Your task to perform on an android device: change timer sound Image 0: 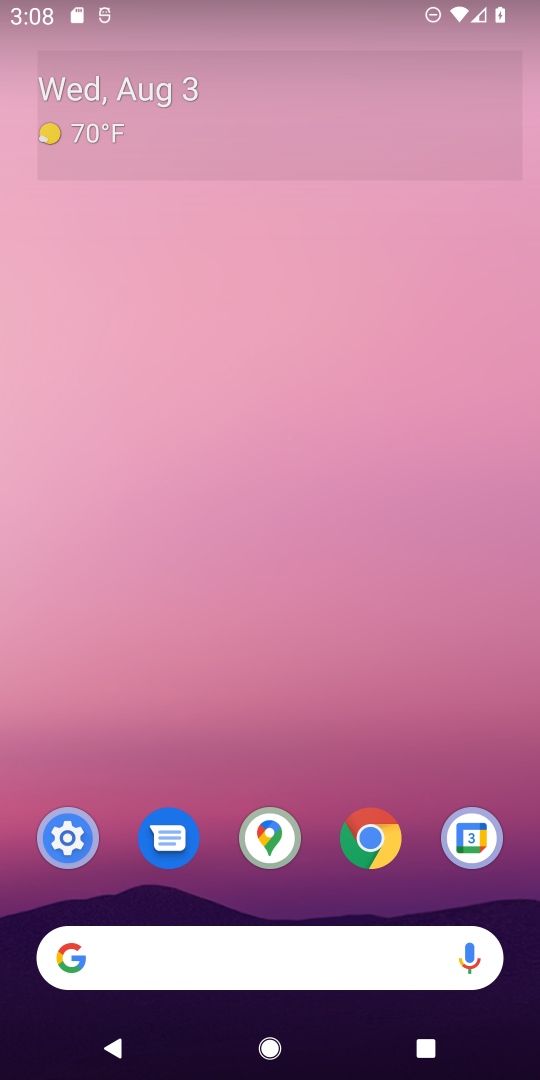
Step 0: drag from (369, 697) to (415, 6)
Your task to perform on an android device: change timer sound Image 1: 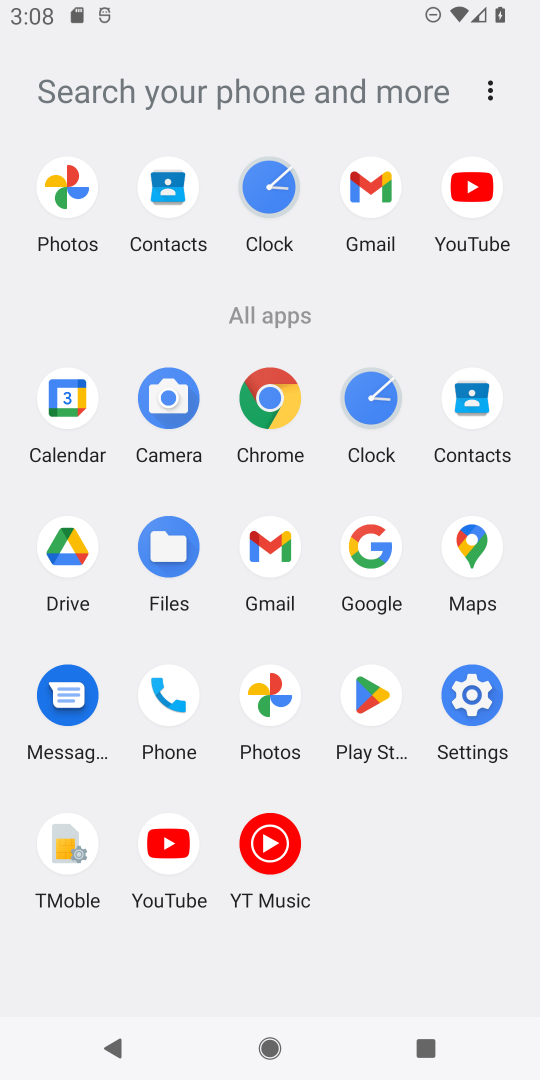
Step 1: click (372, 420)
Your task to perform on an android device: change timer sound Image 2: 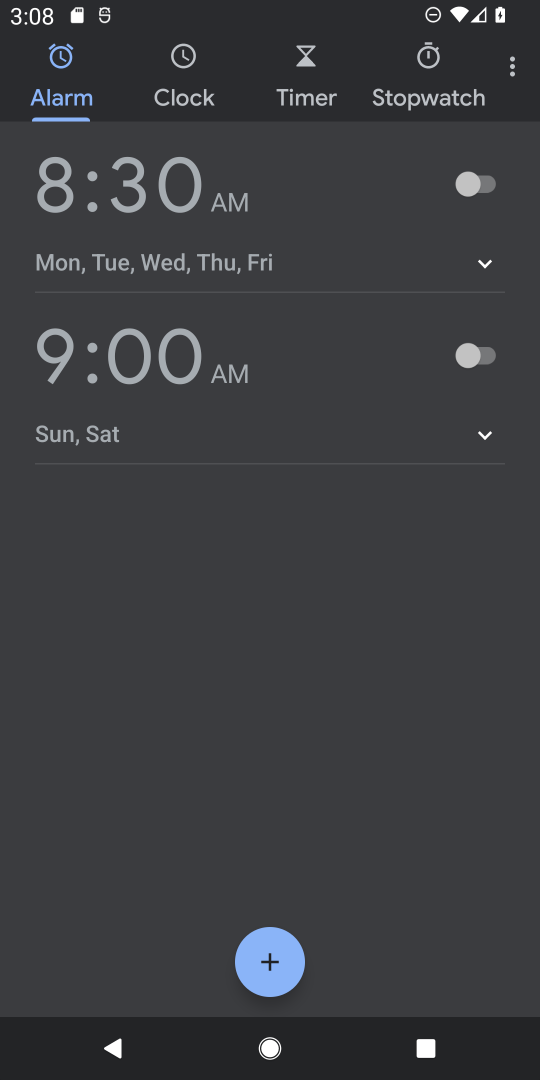
Step 2: click (526, 77)
Your task to perform on an android device: change timer sound Image 3: 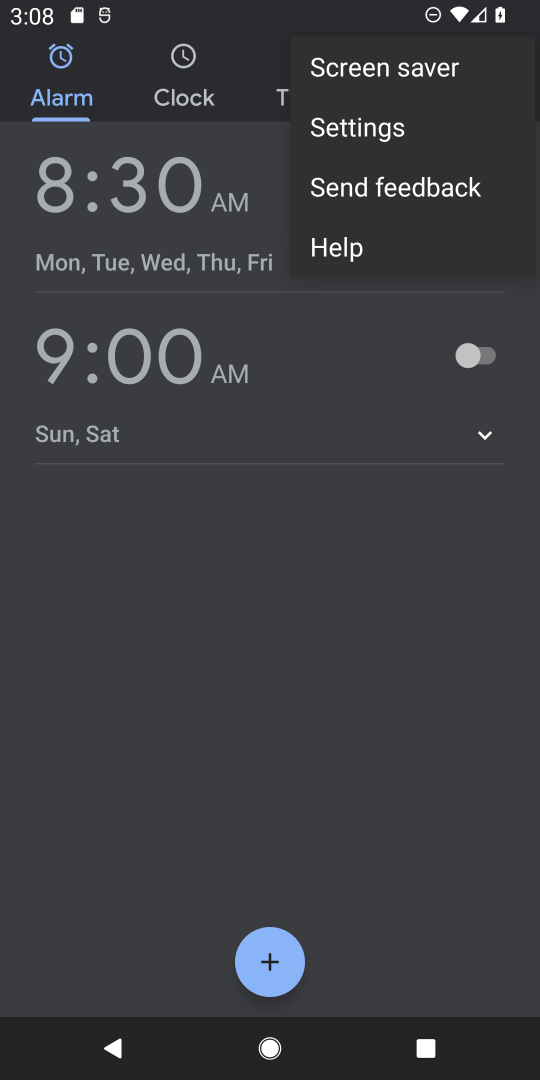
Step 3: click (411, 135)
Your task to perform on an android device: change timer sound Image 4: 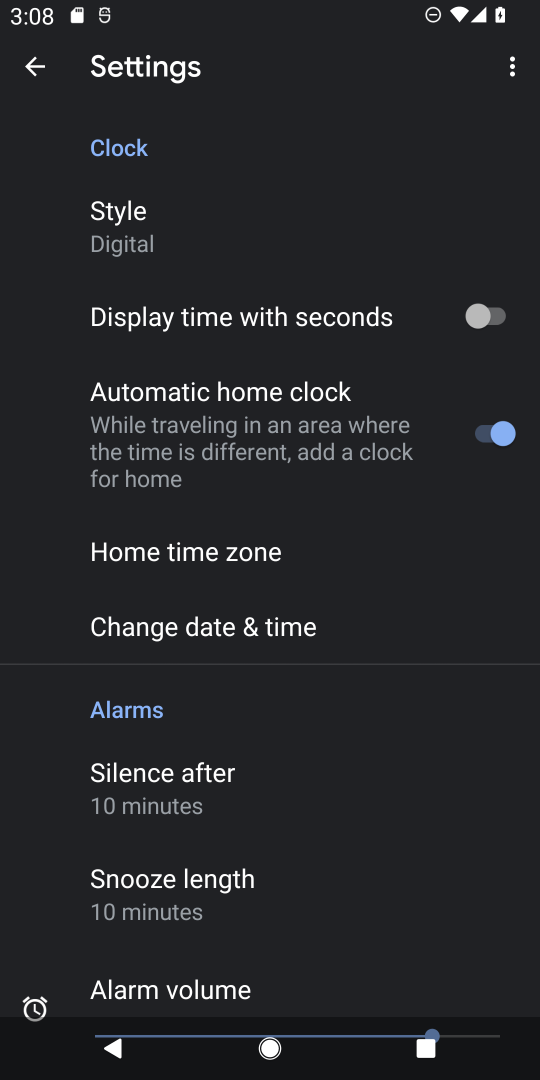
Step 4: drag from (178, 912) to (200, 423)
Your task to perform on an android device: change timer sound Image 5: 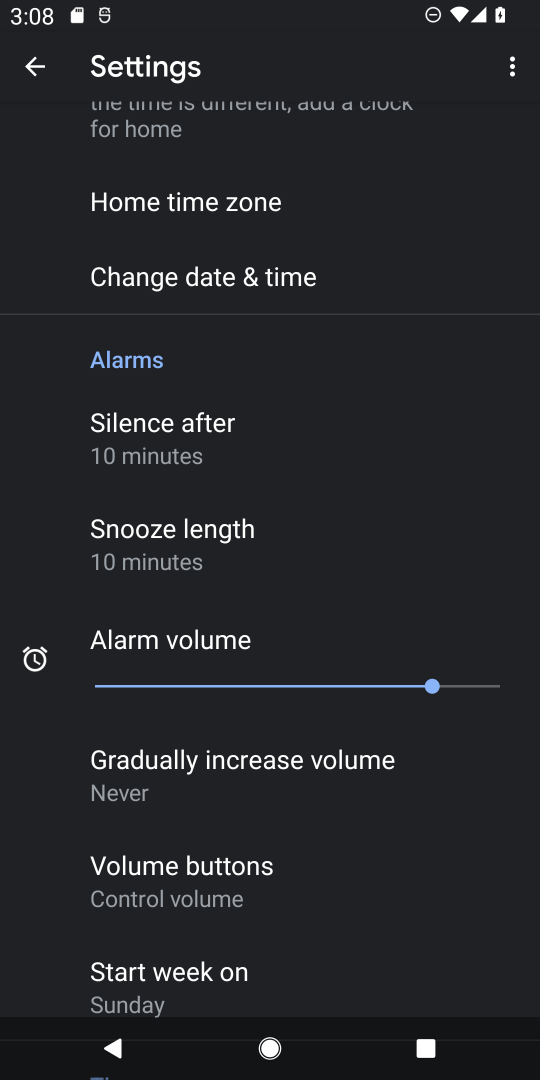
Step 5: drag from (306, 935) to (301, 290)
Your task to perform on an android device: change timer sound Image 6: 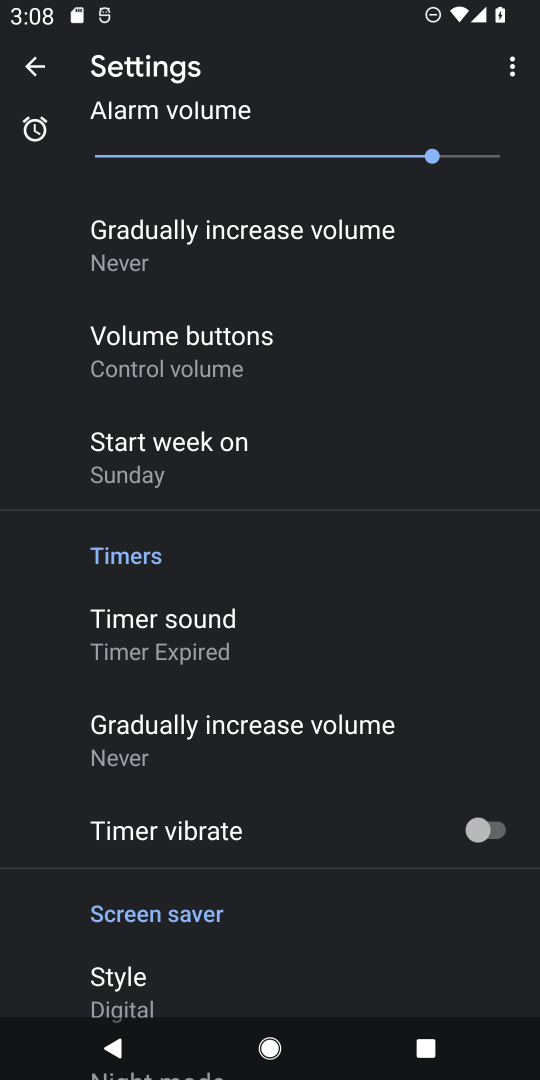
Step 6: click (231, 616)
Your task to perform on an android device: change timer sound Image 7: 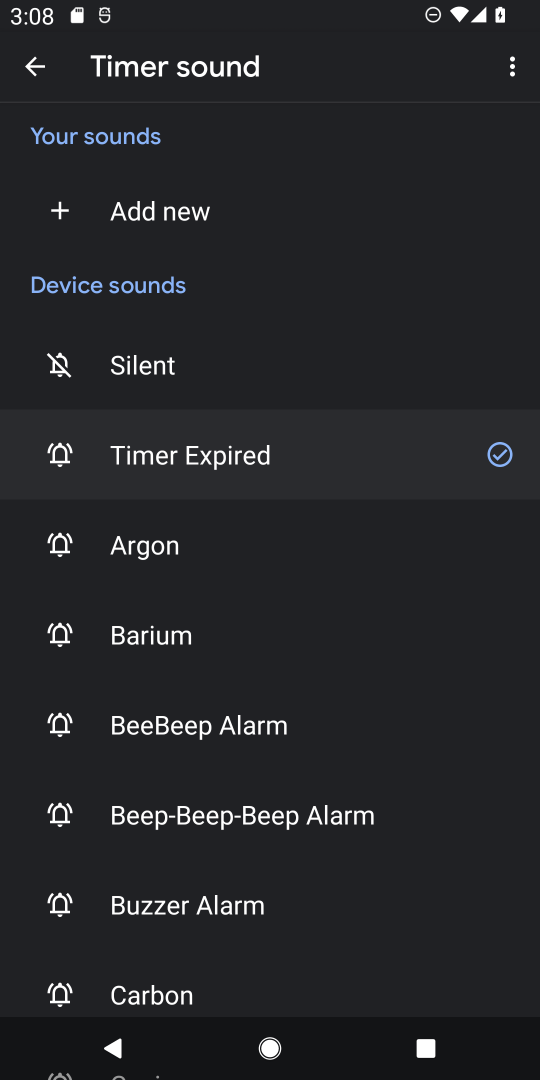
Step 7: click (192, 558)
Your task to perform on an android device: change timer sound Image 8: 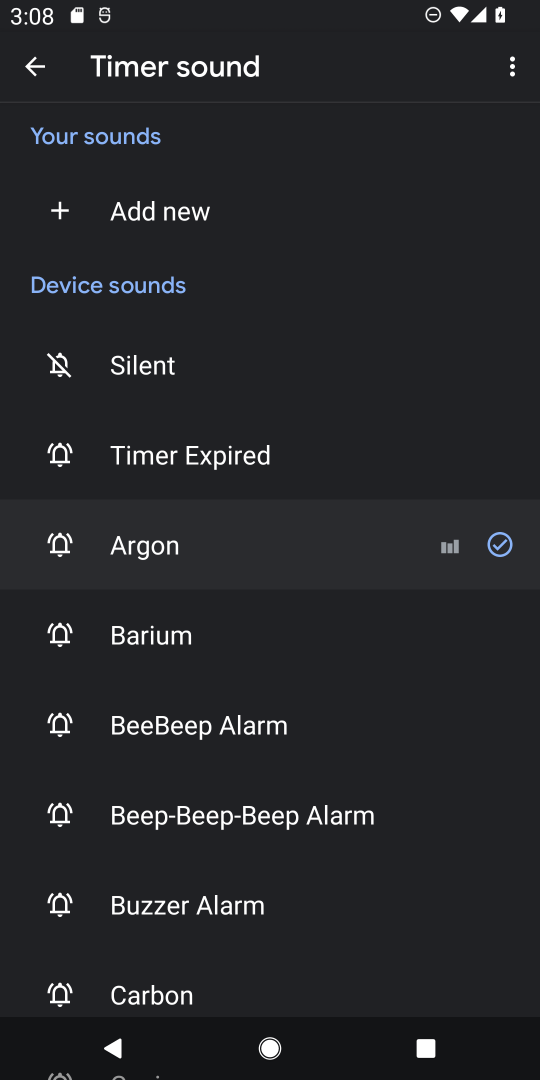
Step 8: task complete